Your task to perform on an android device: Clear the cart on costco.com. Search for "beats solo 3" on costco.com, select the first entry, add it to the cart, then select checkout. Image 0: 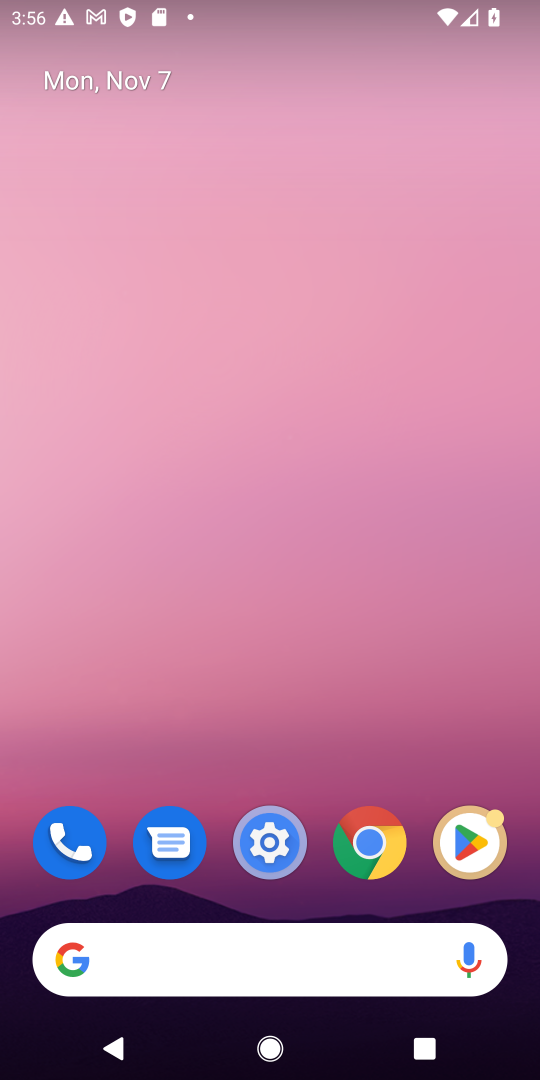
Step 0: drag from (150, 824) to (169, 133)
Your task to perform on an android device: Clear the cart on costco.com. Search for "beats solo 3" on costco.com, select the first entry, add it to the cart, then select checkout. Image 1: 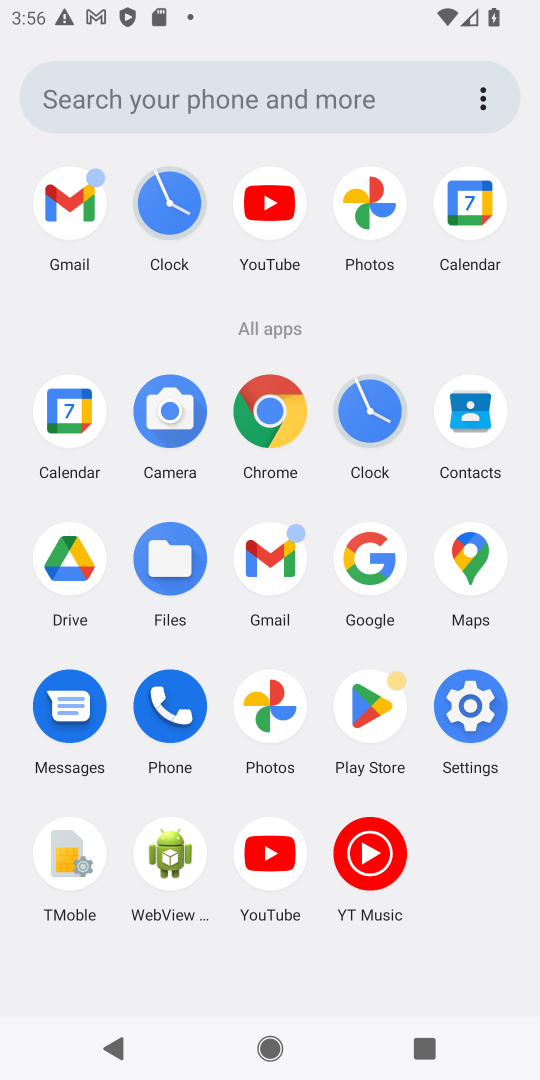
Step 1: click (255, 410)
Your task to perform on an android device: Clear the cart on costco.com. Search for "beats solo 3" on costco.com, select the first entry, add it to the cart, then select checkout. Image 2: 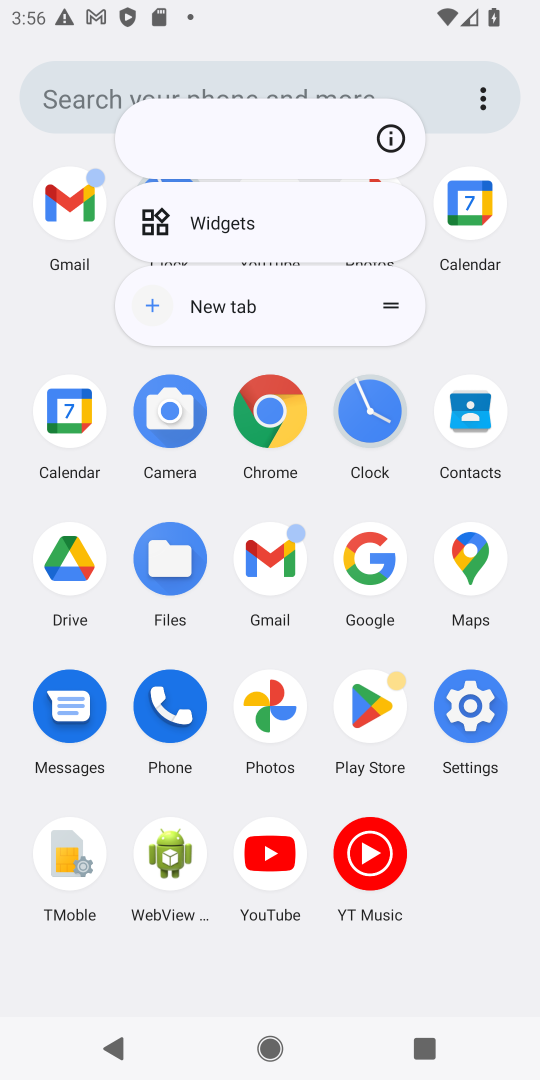
Step 2: click (265, 413)
Your task to perform on an android device: Clear the cart on costco.com. Search for "beats solo 3" on costco.com, select the first entry, add it to the cart, then select checkout. Image 3: 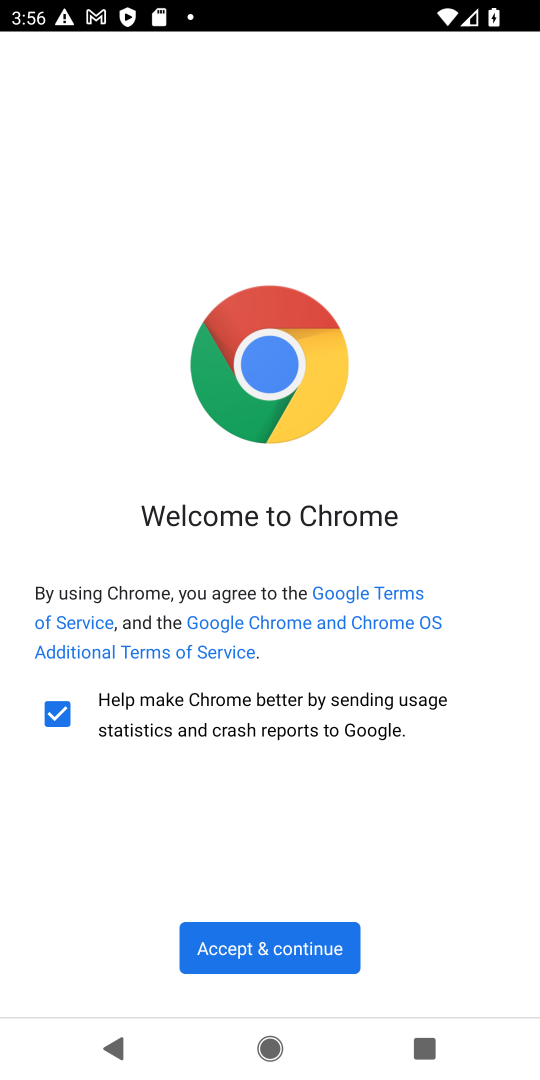
Step 3: click (271, 965)
Your task to perform on an android device: Clear the cart on costco.com. Search for "beats solo 3" on costco.com, select the first entry, add it to the cart, then select checkout. Image 4: 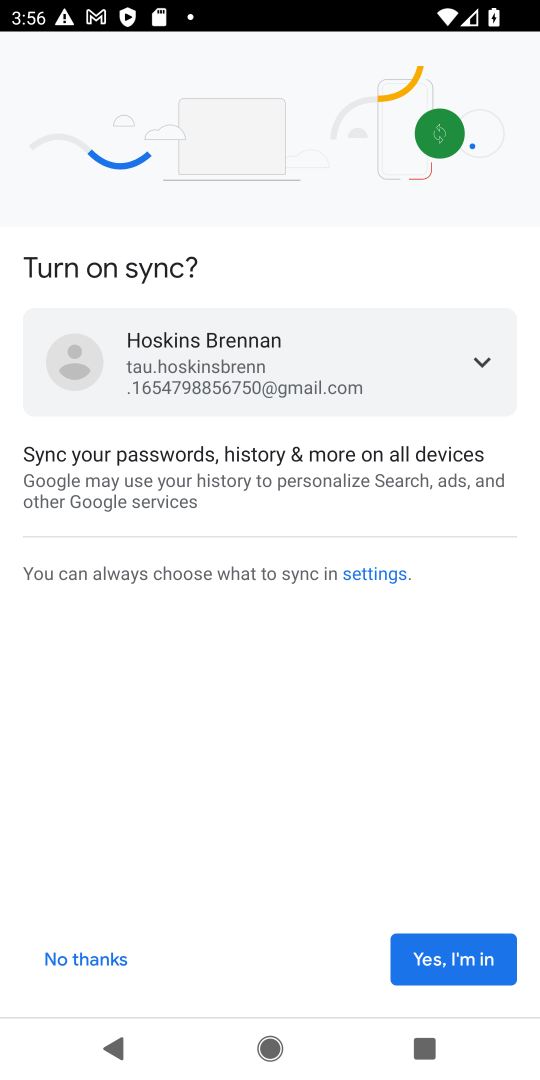
Step 4: click (426, 955)
Your task to perform on an android device: Clear the cart on costco.com. Search for "beats solo 3" on costco.com, select the first entry, add it to the cart, then select checkout. Image 5: 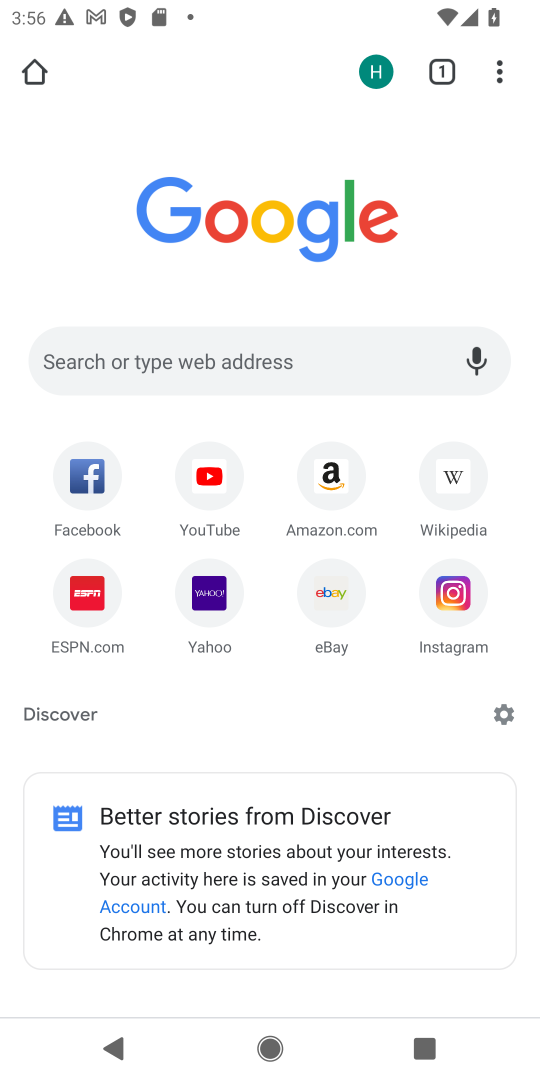
Step 5: click (124, 344)
Your task to perform on an android device: Clear the cart on costco.com. Search for "beats solo 3" on costco.com, select the first entry, add it to the cart, then select checkout. Image 6: 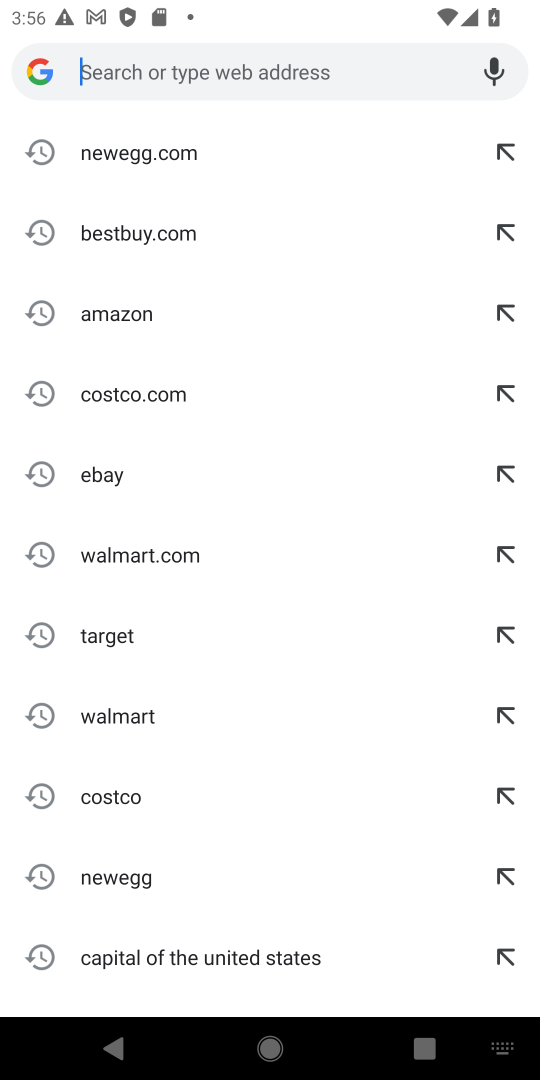
Step 6: type "costco.com."
Your task to perform on an android device: Clear the cart on costco.com. Search for "beats solo 3" on costco.com, select the first entry, add it to the cart, then select checkout. Image 7: 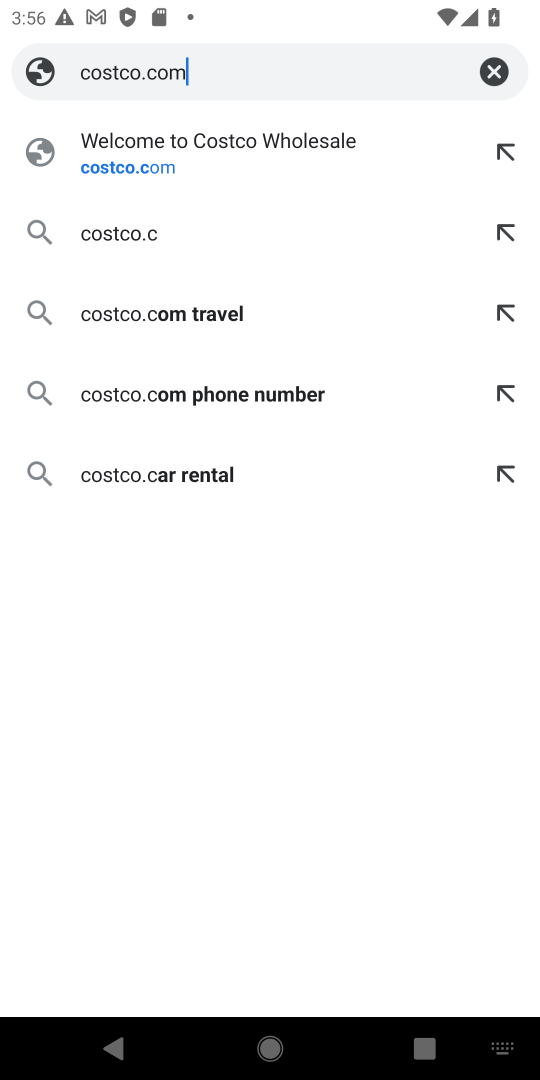
Step 7: press enter
Your task to perform on an android device: Clear the cart on costco.com. Search for "beats solo 3" on costco.com, select the first entry, add it to the cart, then select checkout. Image 8: 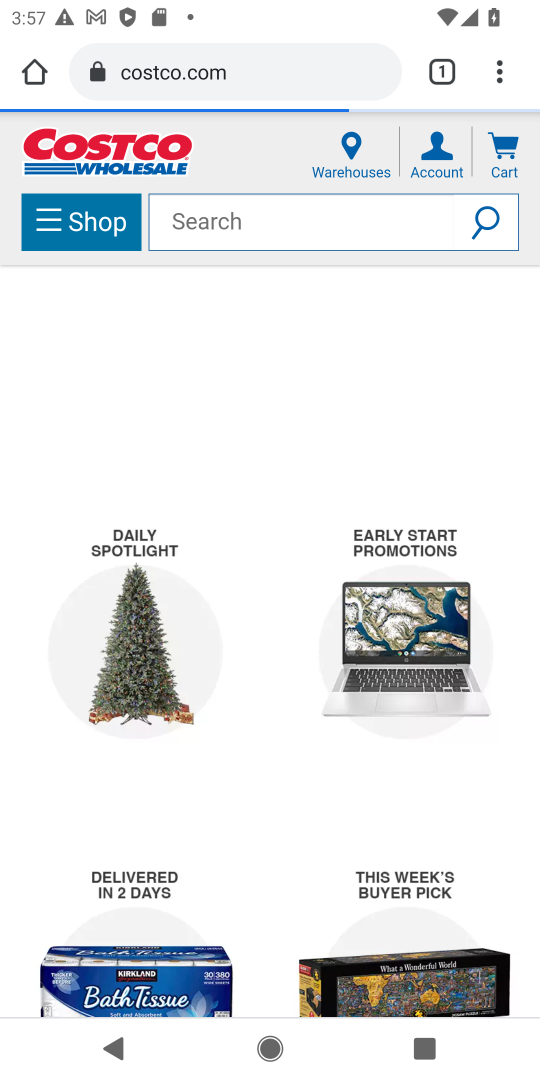
Step 8: click (208, 232)
Your task to perform on an android device: Clear the cart on costco.com. Search for "beats solo 3" on costco.com, select the first entry, add it to the cart, then select checkout. Image 9: 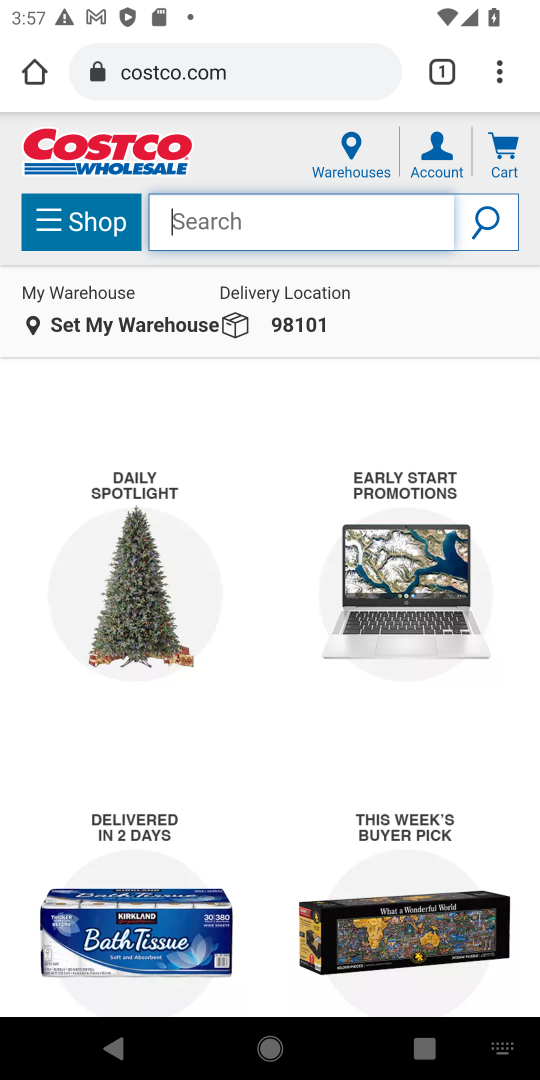
Step 9: click (510, 144)
Your task to perform on an android device: Clear the cart on costco.com. Search for "beats solo 3" on costco.com, select the first entry, add it to the cart, then select checkout. Image 10: 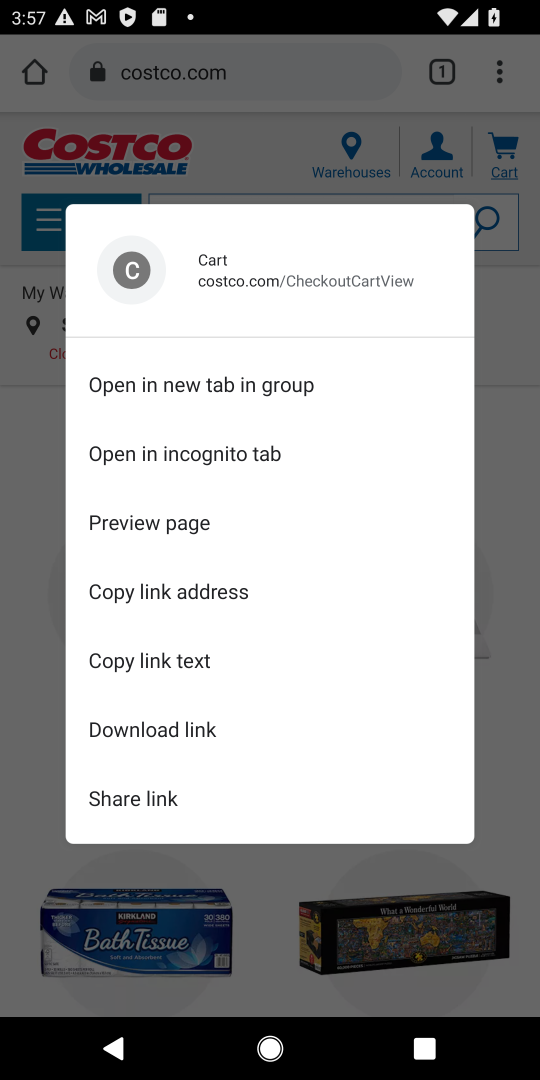
Step 10: click (512, 146)
Your task to perform on an android device: Clear the cart on costco.com. Search for "beats solo 3" on costco.com, select the first entry, add it to the cart, then select checkout. Image 11: 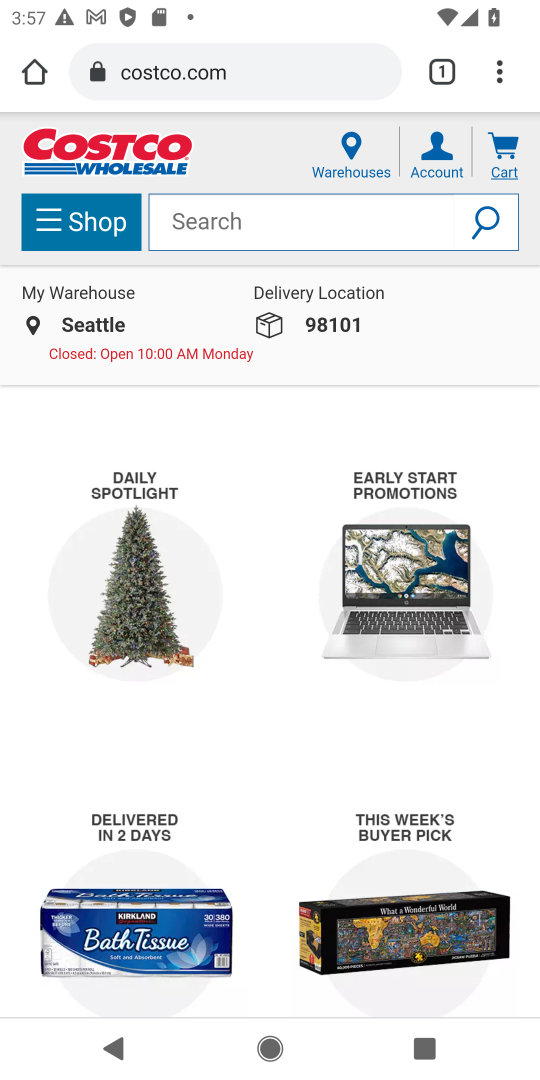
Step 11: click (512, 146)
Your task to perform on an android device: Clear the cart on costco.com. Search for "beats solo 3" on costco.com, select the first entry, add it to the cart, then select checkout. Image 12: 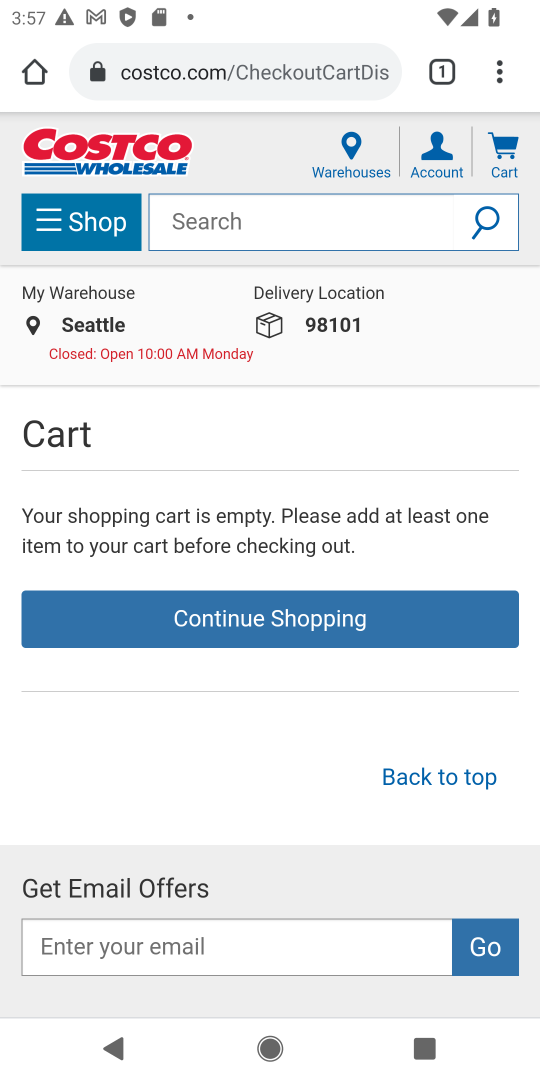
Step 12: click (213, 207)
Your task to perform on an android device: Clear the cart on costco.com. Search for "beats solo 3" on costco.com, select the first entry, add it to the cart, then select checkout. Image 13: 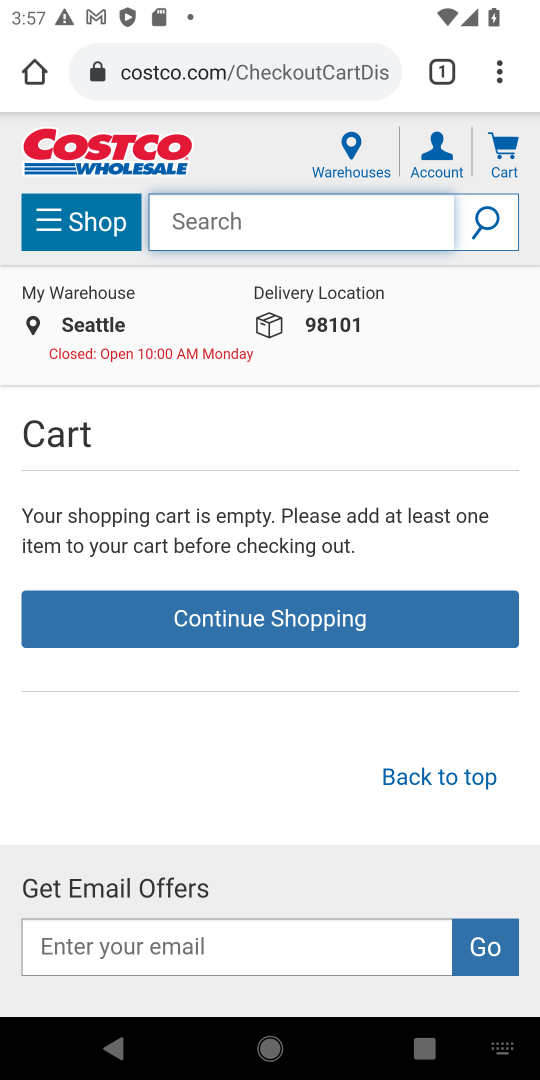
Step 13: type "beats solo 3"
Your task to perform on an android device: Clear the cart on costco.com. Search for "beats solo 3" on costco.com, select the first entry, add it to the cart, then select checkout. Image 14: 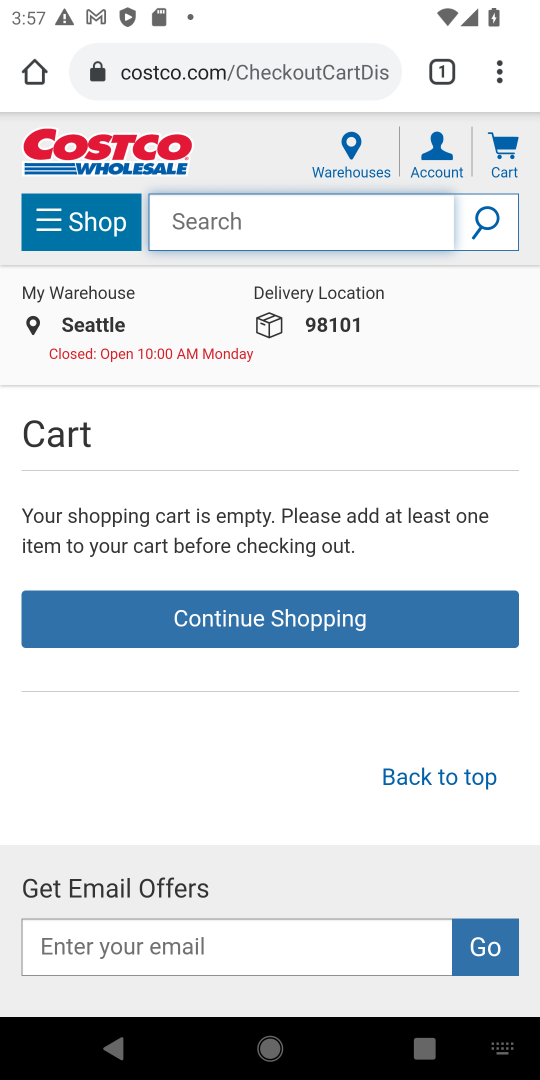
Step 14: press enter
Your task to perform on an android device: Clear the cart on costco.com. Search for "beats solo 3" on costco.com, select the first entry, add it to the cart, then select checkout. Image 15: 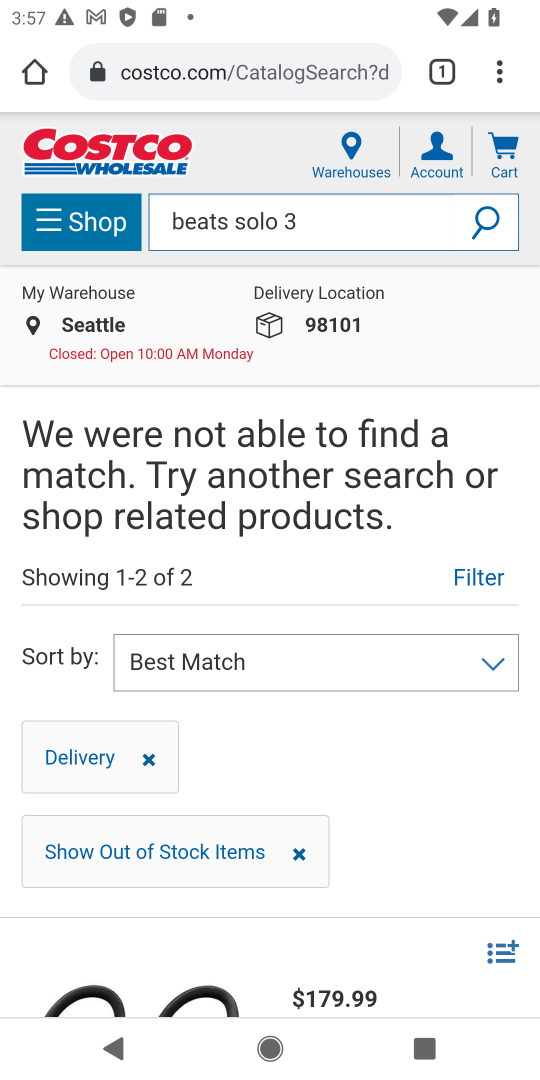
Step 15: press enter
Your task to perform on an android device: Clear the cart on costco.com. Search for "beats solo 3" on costco.com, select the first entry, add it to the cart, then select checkout. Image 16: 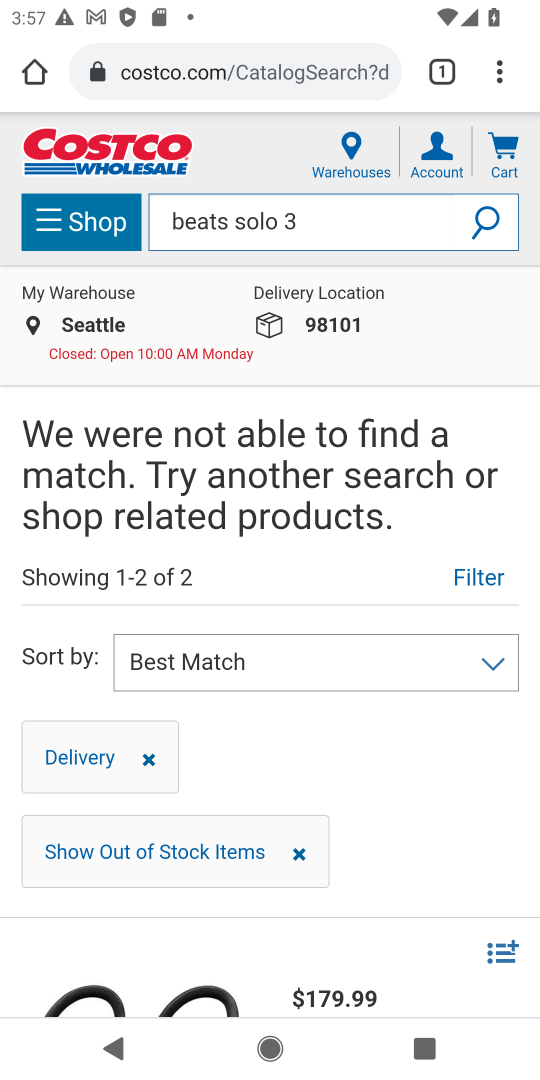
Step 16: press enter
Your task to perform on an android device: Clear the cart on costco.com. Search for "beats solo 3" on costco.com, select the first entry, add it to the cart, then select checkout. Image 17: 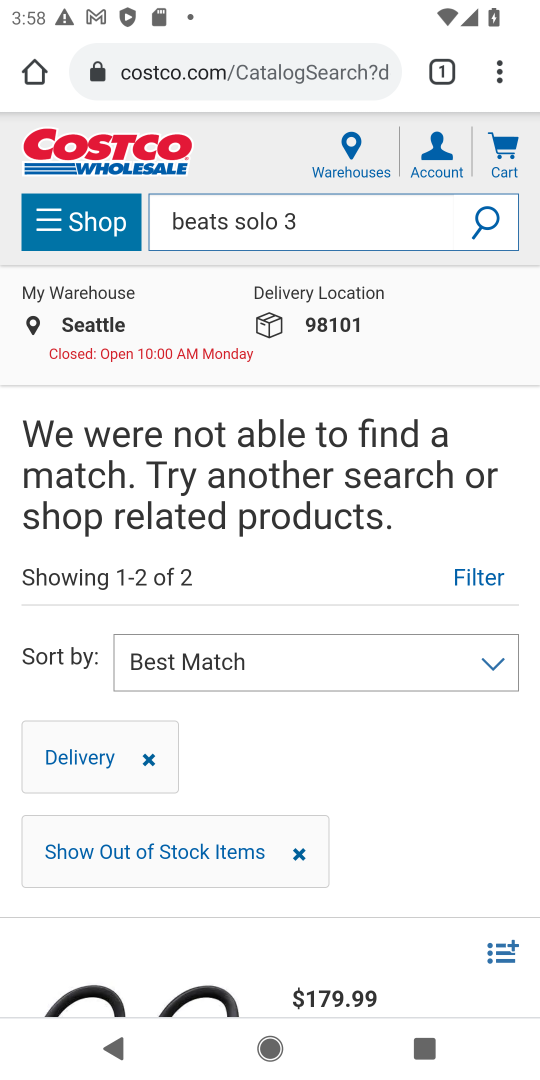
Step 17: task complete